Your task to perform on an android device: What's the price of the Hisense TV? Image 0: 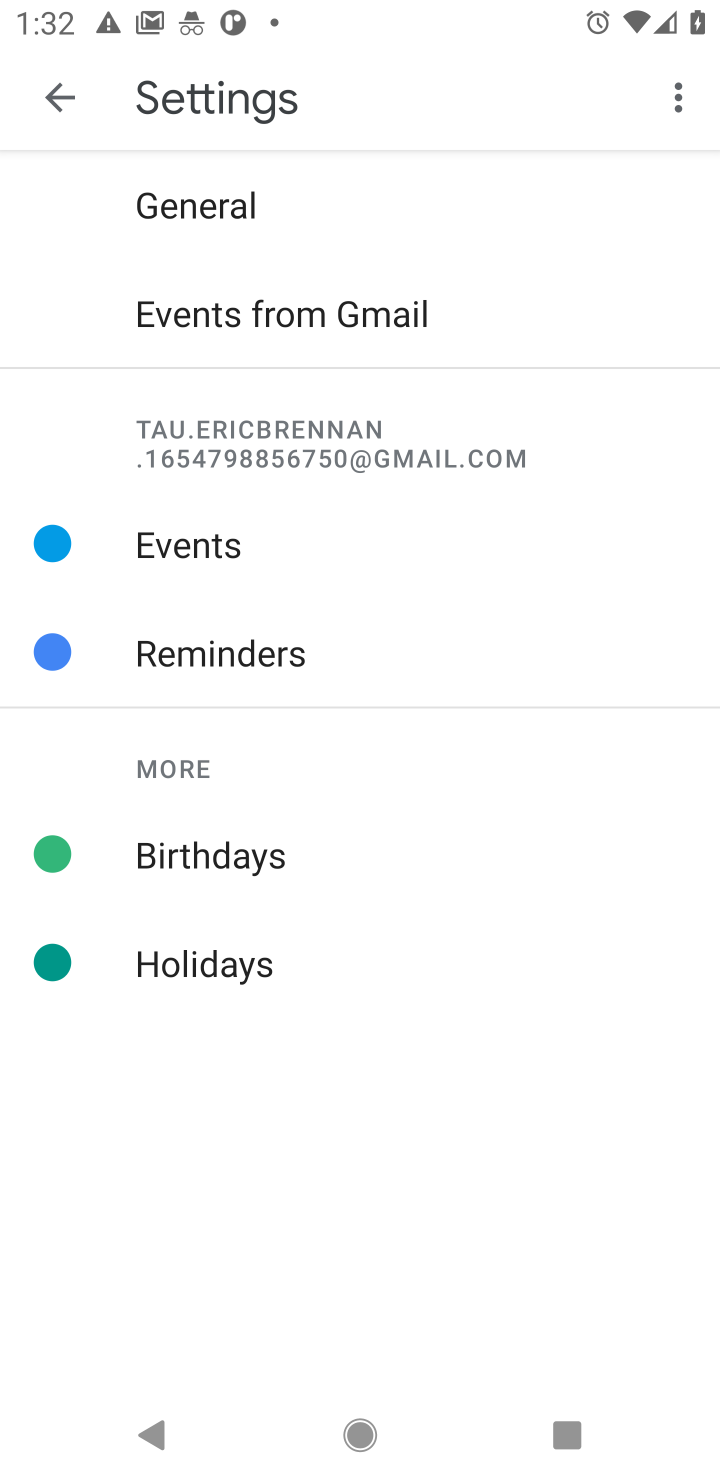
Step 0: press home button
Your task to perform on an android device: What's the price of the Hisense TV? Image 1: 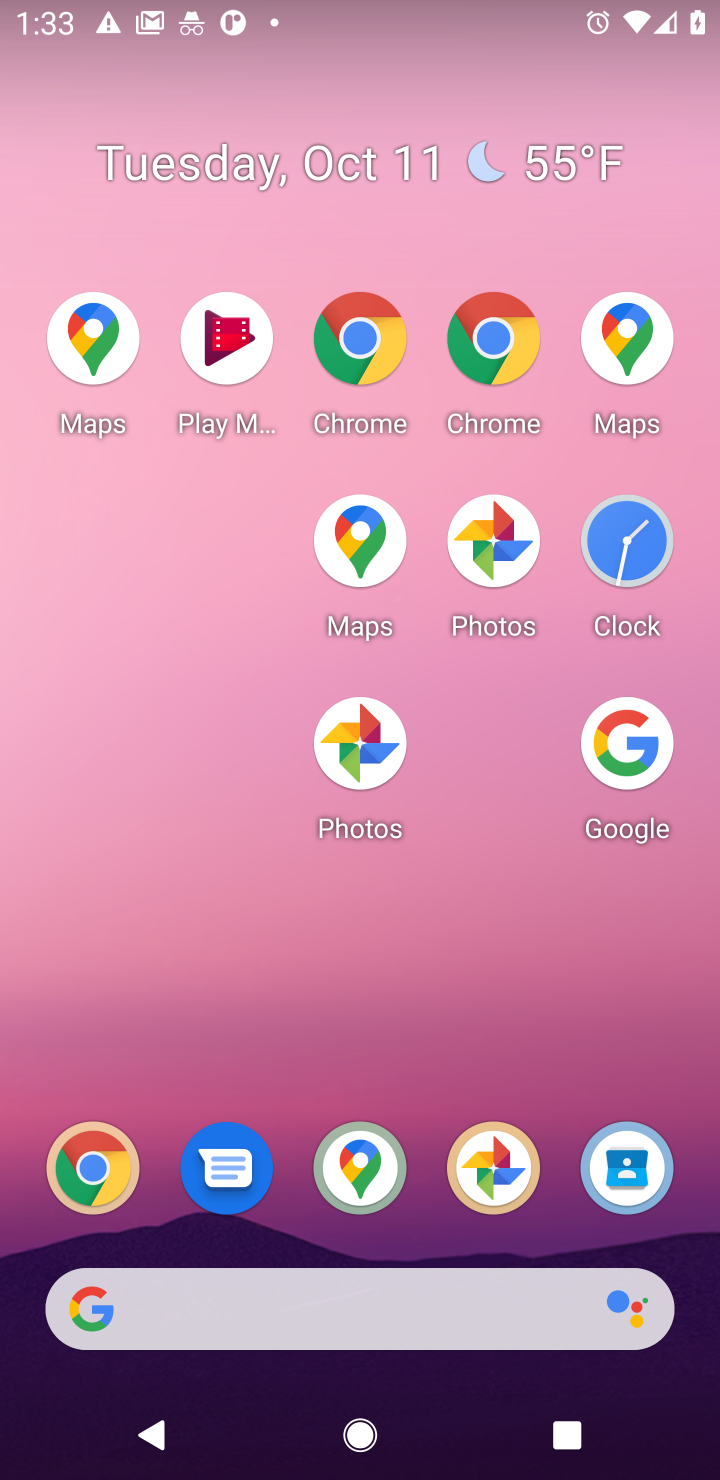
Step 1: drag from (403, 1008) to (658, 118)
Your task to perform on an android device: What's the price of the Hisense TV? Image 2: 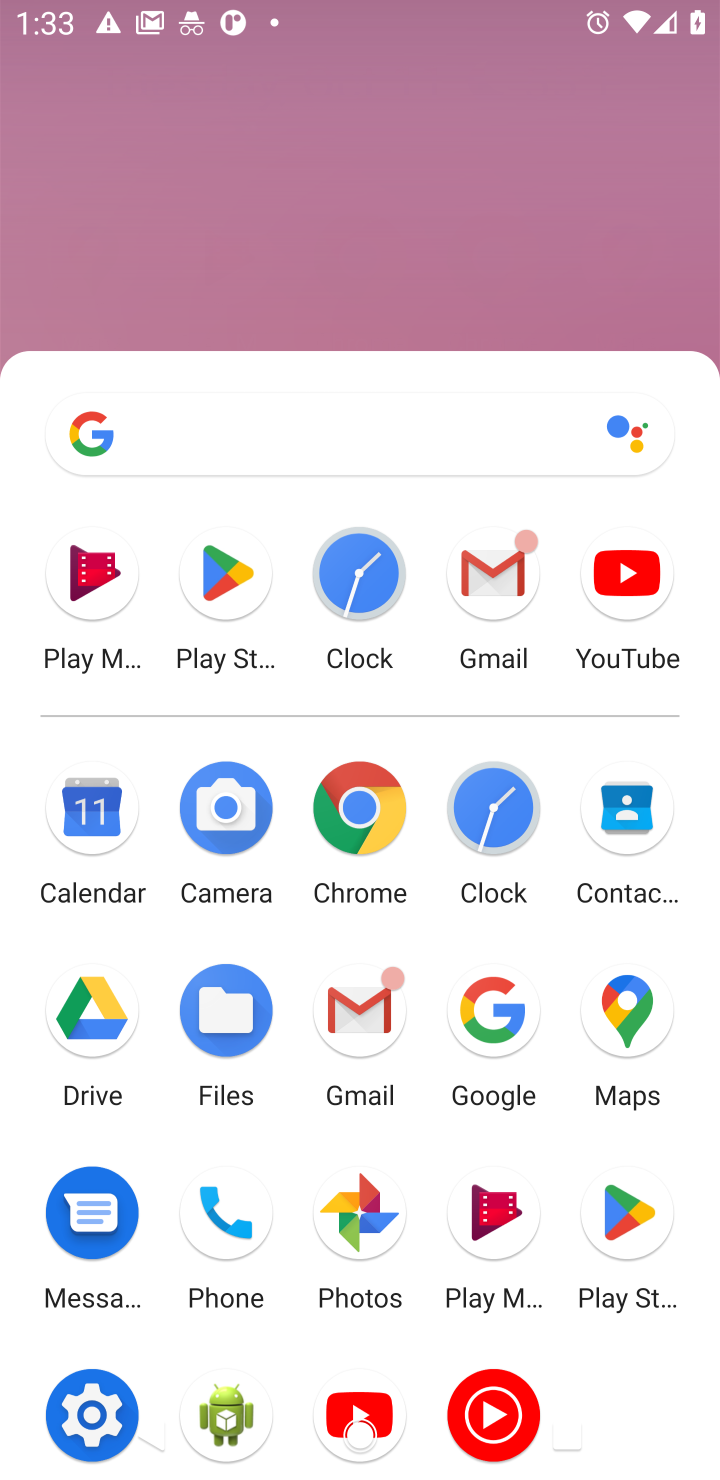
Step 2: drag from (377, 991) to (390, 352)
Your task to perform on an android device: What's the price of the Hisense TV? Image 3: 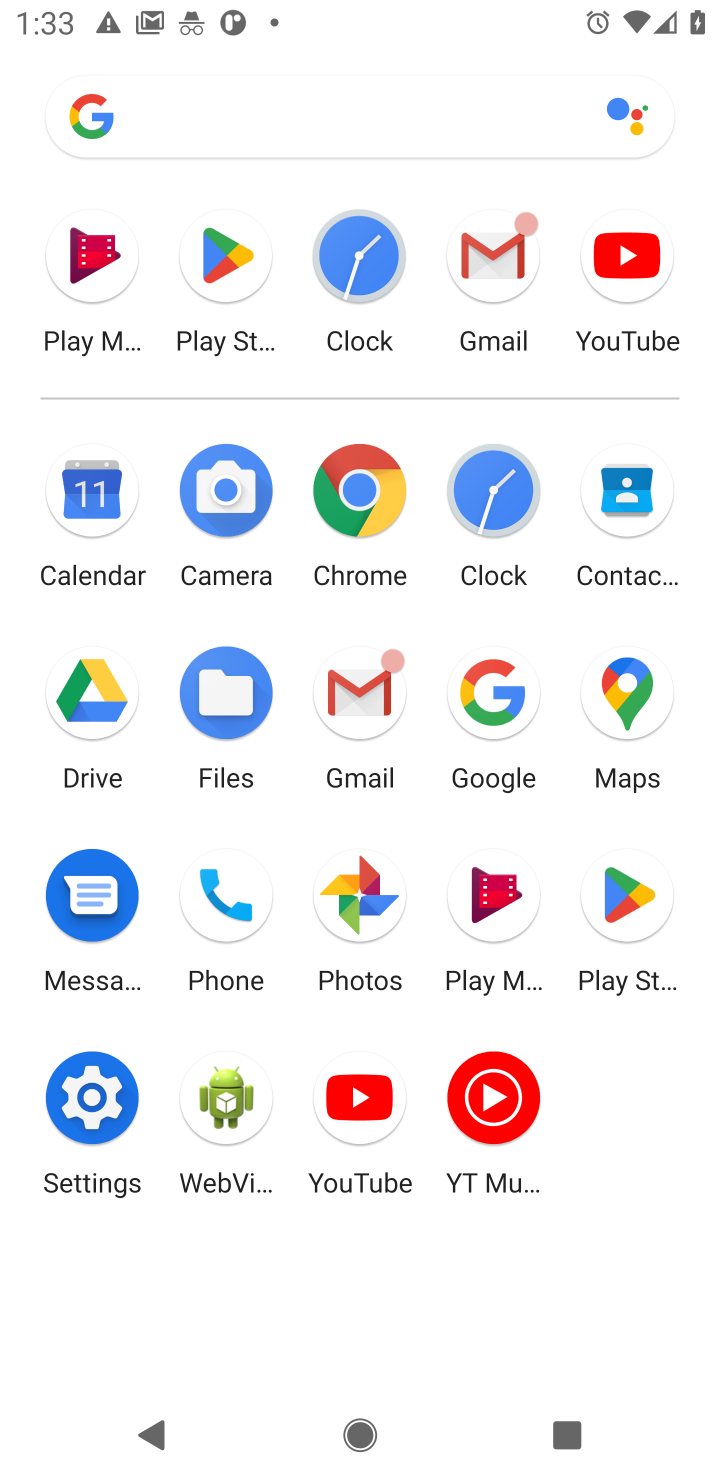
Step 3: click (497, 738)
Your task to perform on an android device: What's the price of the Hisense TV? Image 4: 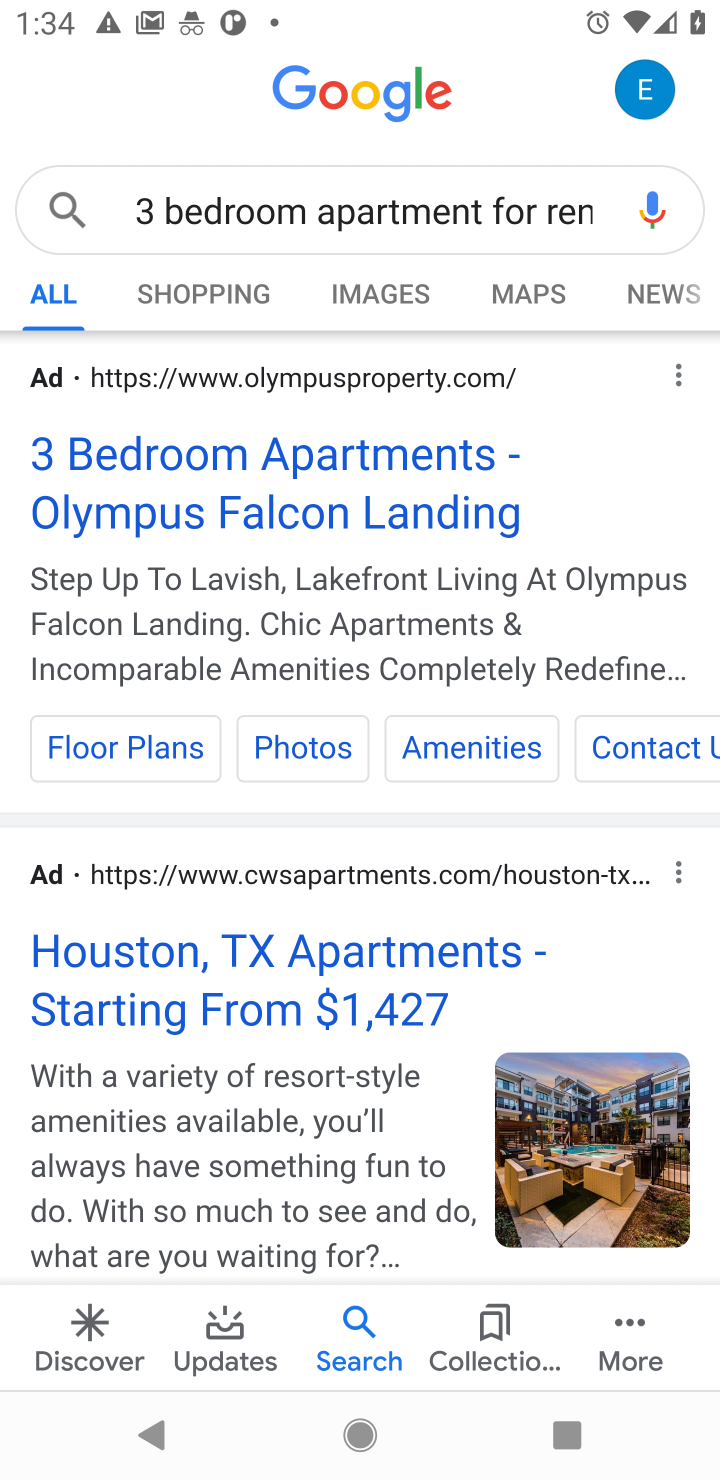
Step 4: click (456, 222)
Your task to perform on an android device: What's the price of the Hisense TV? Image 5: 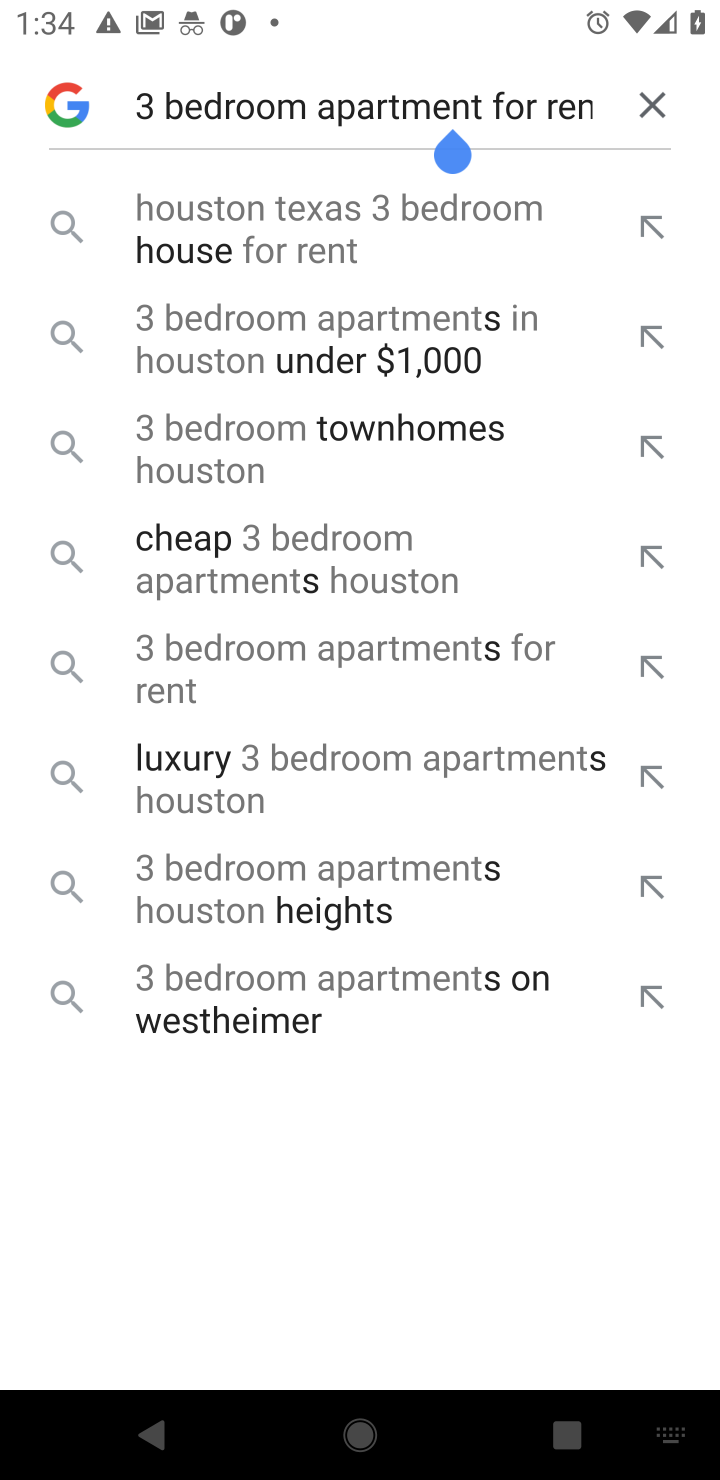
Step 5: click (645, 116)
Your task to perform on an android device: What's the price of the Hisense TV? Image 6: 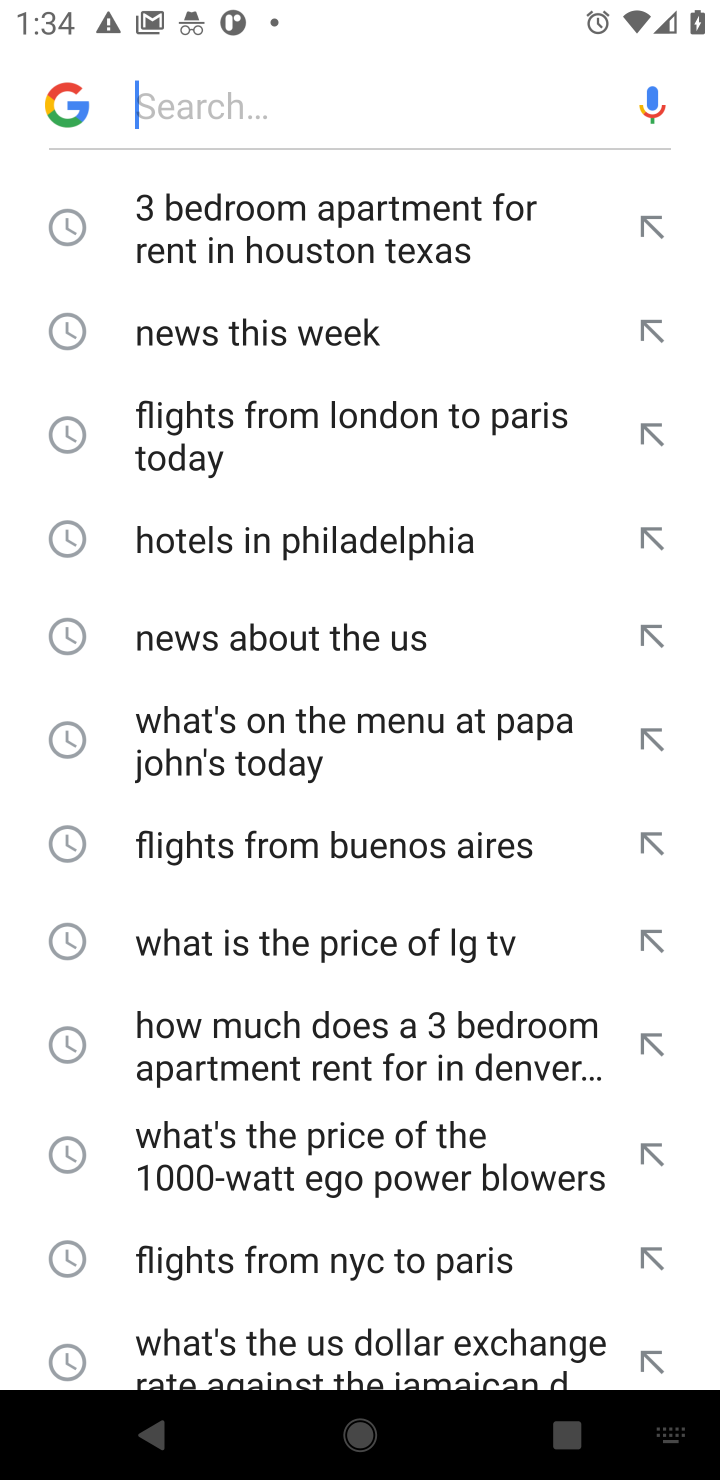
Step 6: type "price of the Hisense TV"
Your task to perform on an android device: What's the price of the Hisense TV? Image 7: 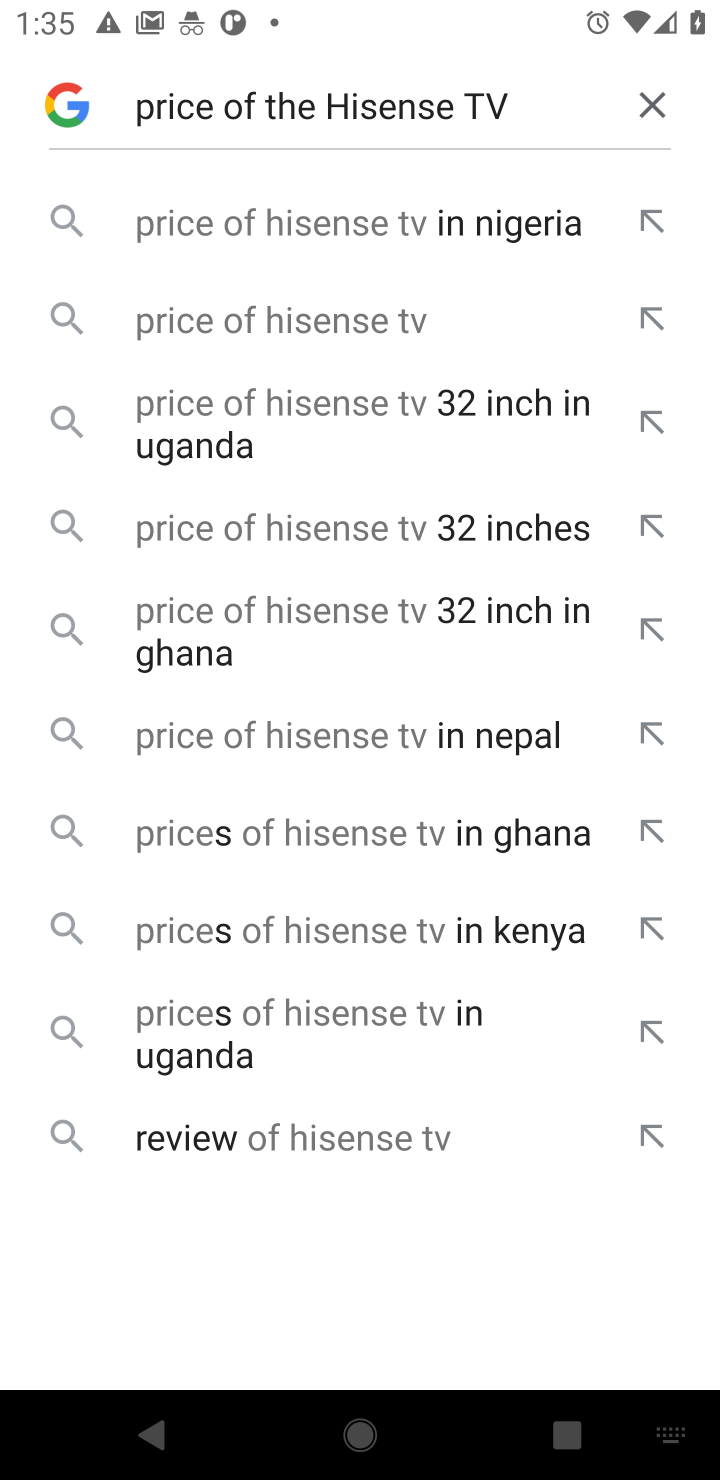
Step 7: click (439, 315)
Your task to perform on an android device: What's the price of the Hisense TV? Image 8: 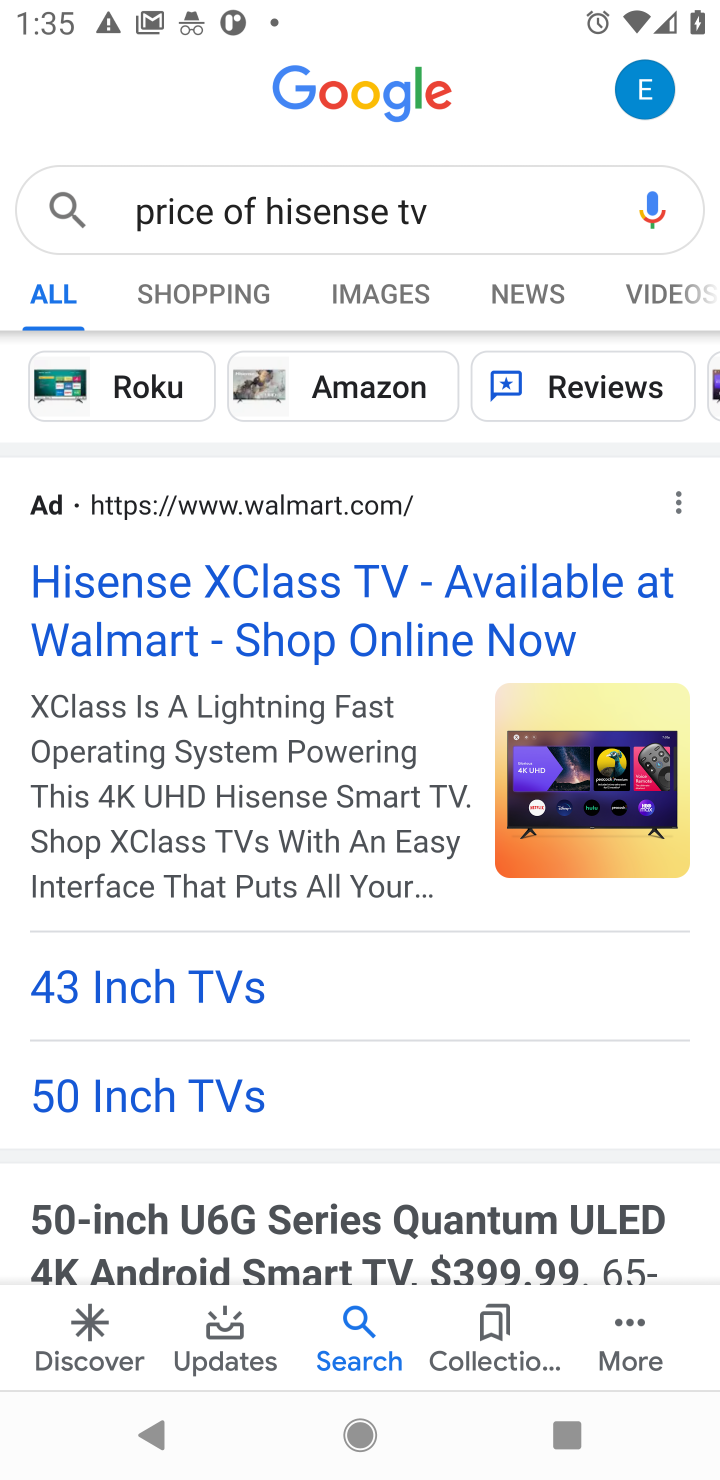
Step 8: click (210, 299)
Your task to perform on an android device: What's the price of the Hisense TV? Image 9: 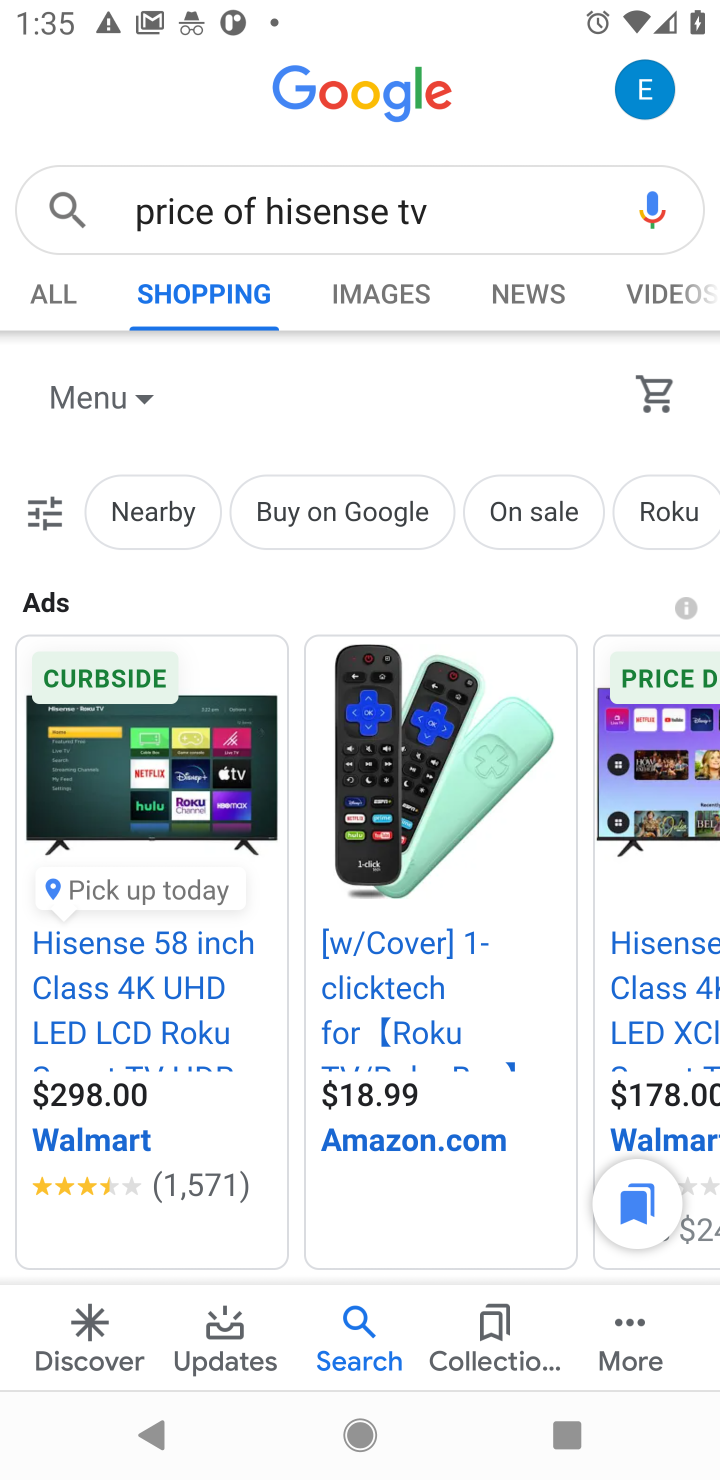
Step 9: task complete